Your task to perform on an android device: install app "HBO Max: Stream TV & Movies" Image 0: 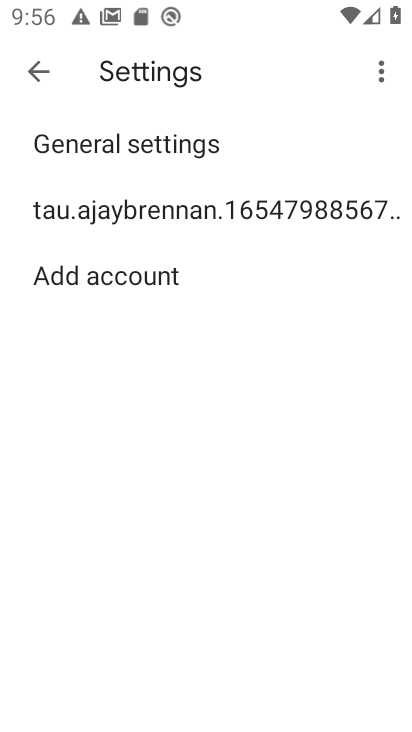
Step 0: press home button
Your task to perform on an android device: install app "HBO Max: Stream TV & Movies" Image 1: 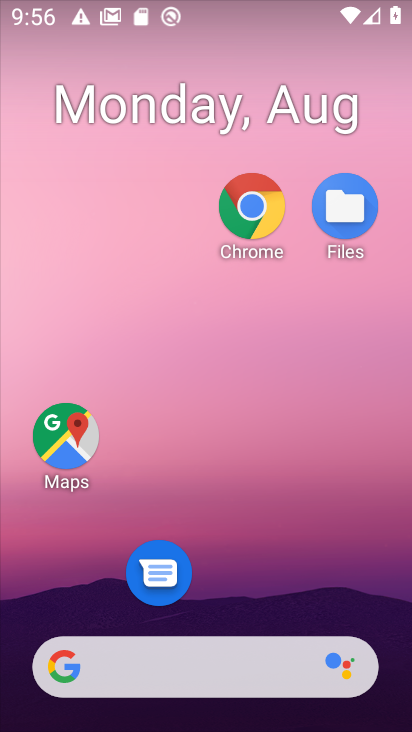
Step 1: click (253, 652)
Your task to perform on an android device: install app "HBO Max: Stream TV & Movies" Image 2: 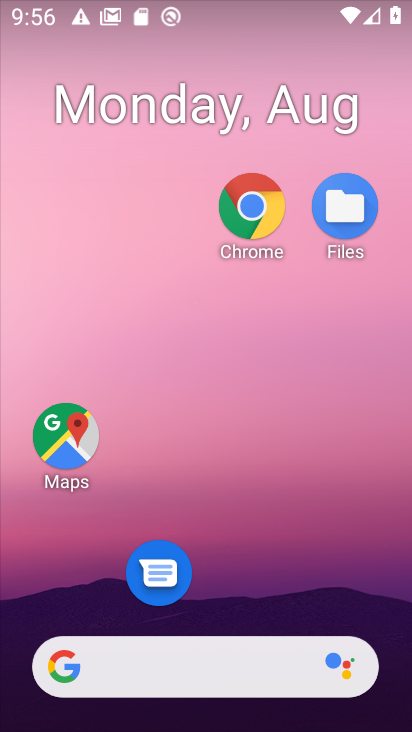
Step 2: drag from (253, 652) to (194, 29)
Your task to perform on an android device: install app "HBO Max: Stream TV & Movies" Image 3: 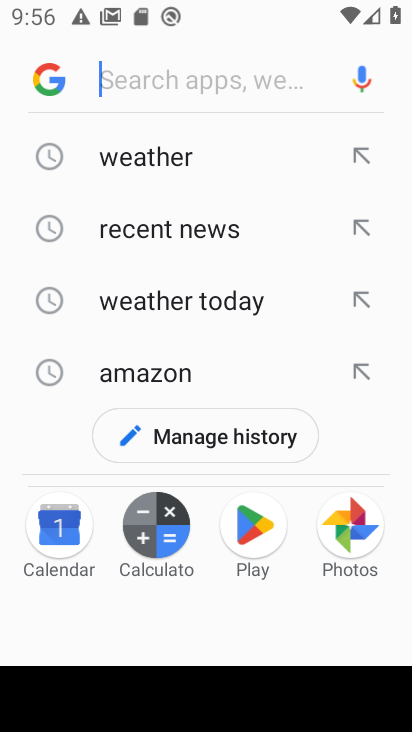
Step 3: press home button
Your task to perform on an android device: install app "HBO Max: Stream TV & Movies" Image 4: 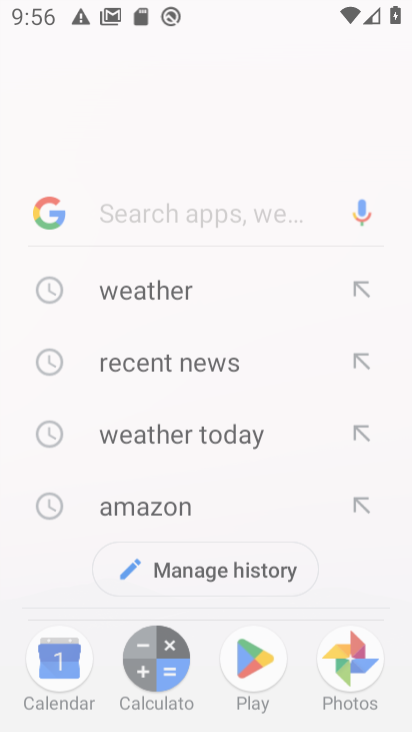
Step 4: drag from (194, 29) to (383, 566)
Your task to perform on an android device: install app "HBO Max: Stream TV & Movies" Image 5: 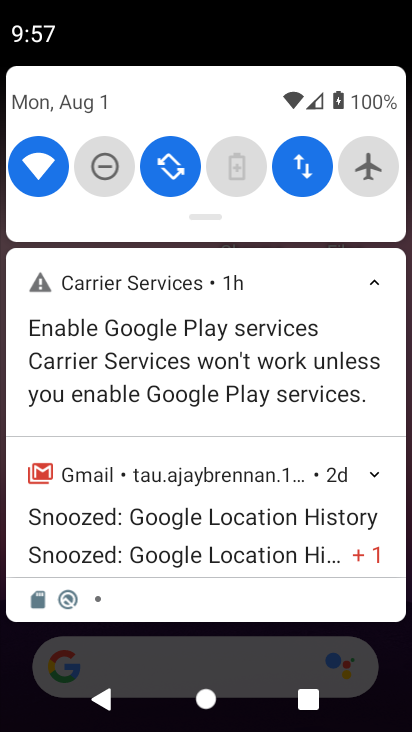
Step 5: press home button
Your task to perform on an android device: install app "HBO Max: Stream TV & Movies" Image 6: 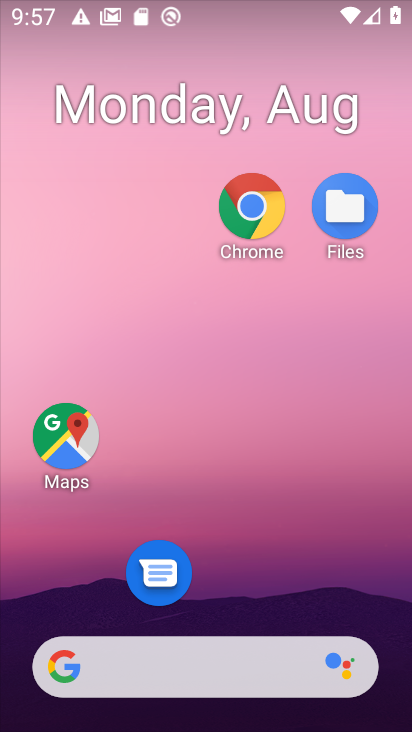
Step 6: drag from (202, 603) to (13, 330)
Your task to perform on an android device: install app "HBO Max: Stream TV & Movies" Image 7: 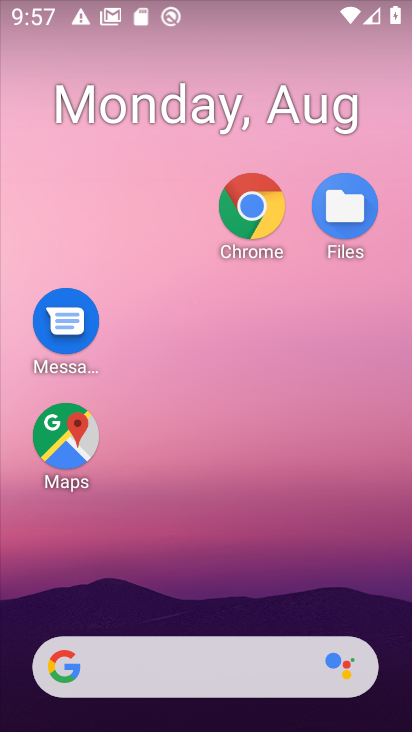
Step 7: click (257, 517)
Your task to perform on an android device: install app "HBO Max: Stream TV & Movies" Image 8: 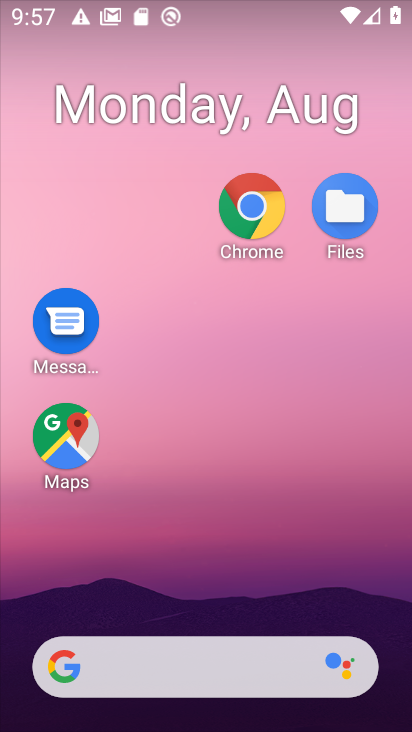
Step 8: drag from (196, 576) to (109, 221)
Your task to perform on an android device: install app "HBO Max: Stream TV & Movies" Image 9: 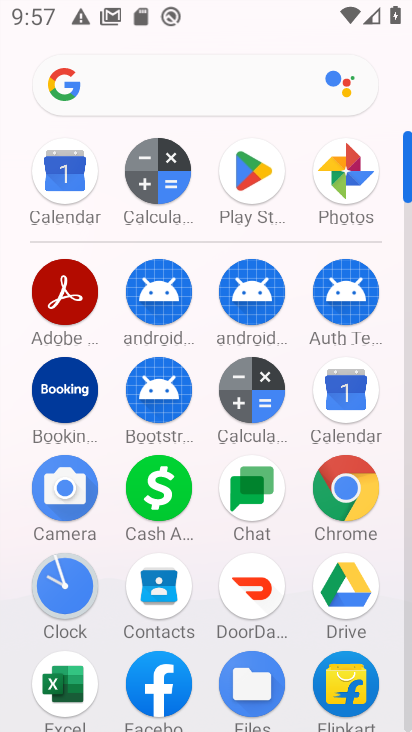
Step 9: click (250, 166)
Your task to perform on an android device: install app "HBO Max: Stream TV & Movies" Image 10: 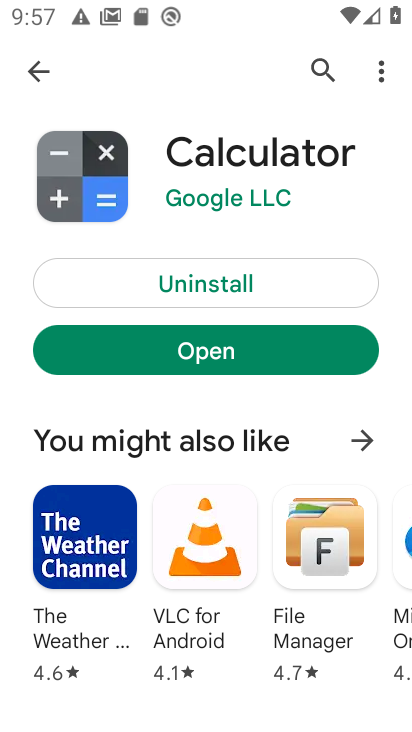
Step 10: click (322, 72)
Your task to perform on an android device: install app "HBO Max: Stream TV & Movies" Image 11: 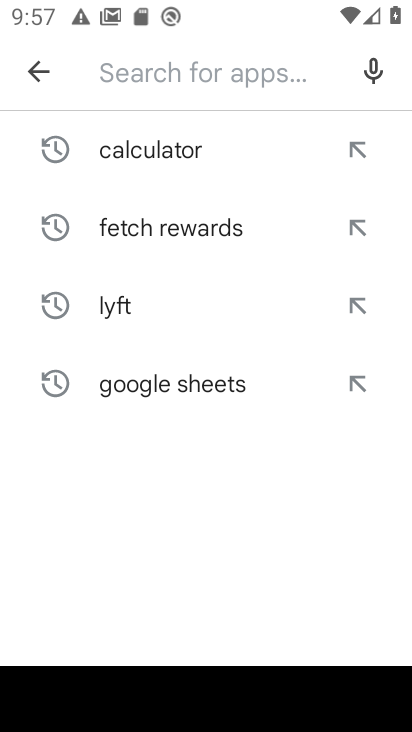
Step 11: type "hbo max: stream tv & movies"
Your task to perform on an android device: install app "HBO Max: Stream TV & Movies" Image 12: 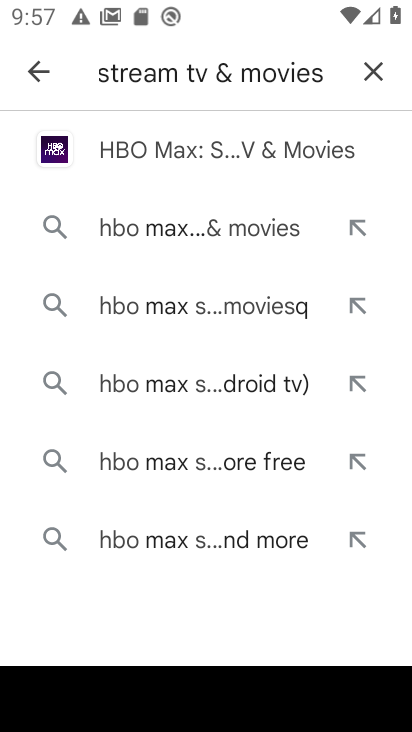
Step 12: click (339, 159)
Your task to perform on an android device: install app "HBO Max: Stream TV & Movies" Image 13: 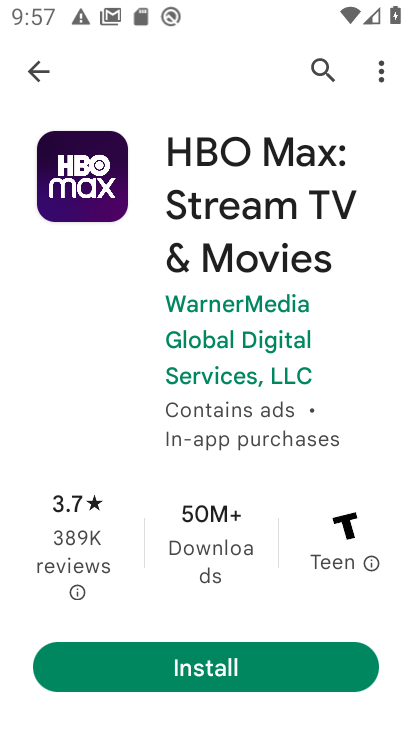
Step 13: task complete